Your task to perform on an android device: change notifications settings Image 0: 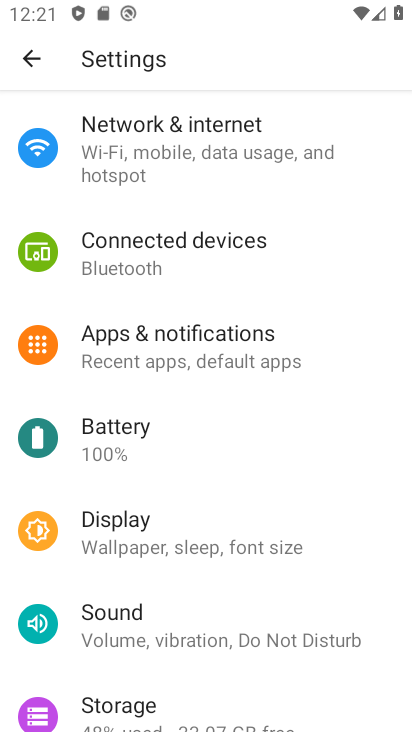
Step 0: click (139, 369)
Your task to perform on an android device: change notifications settings Image 1: 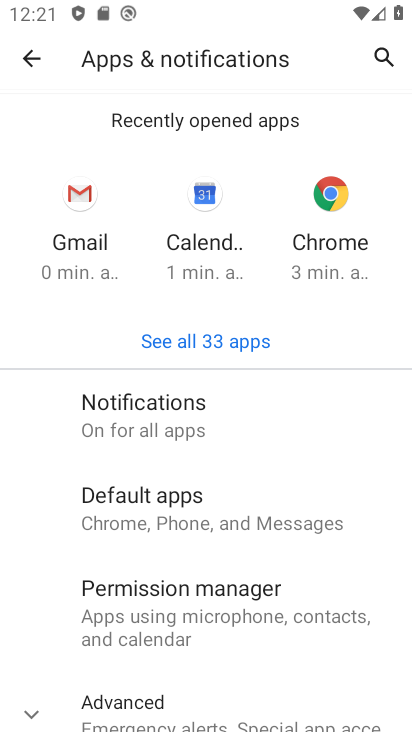
Step 1: click (153, 407)
Your task to perform on an android device: change notifications settings Image 2: 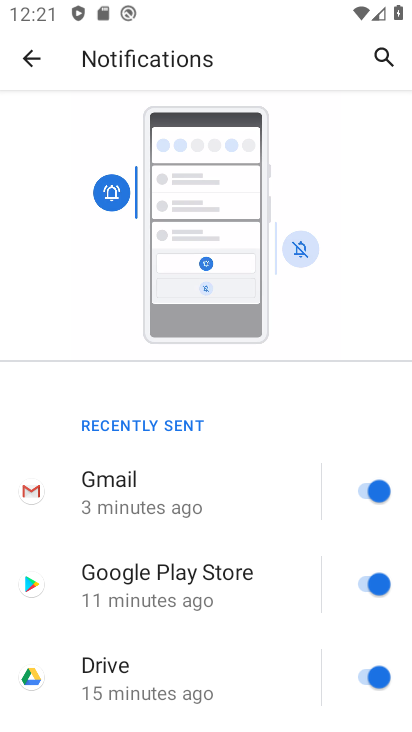
Step 2: drag from (218, 621) to (195, 324)
Your task to perform on an android device: change notifications settings Image 3: 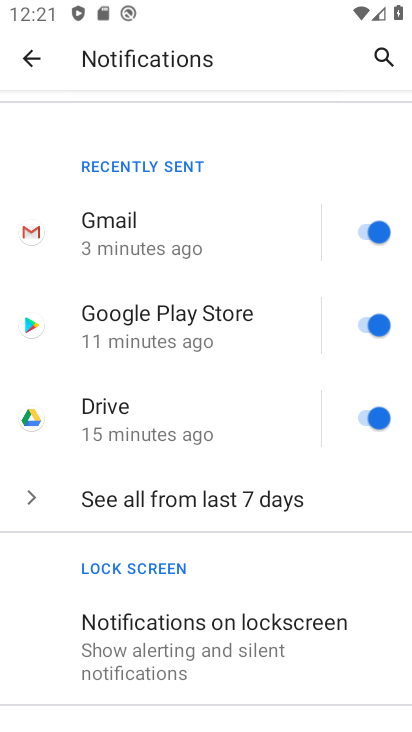
Step 3: drag from (236, 673) to (216, 449)
Your task to perform on an android device: change notifications settings Image 4: 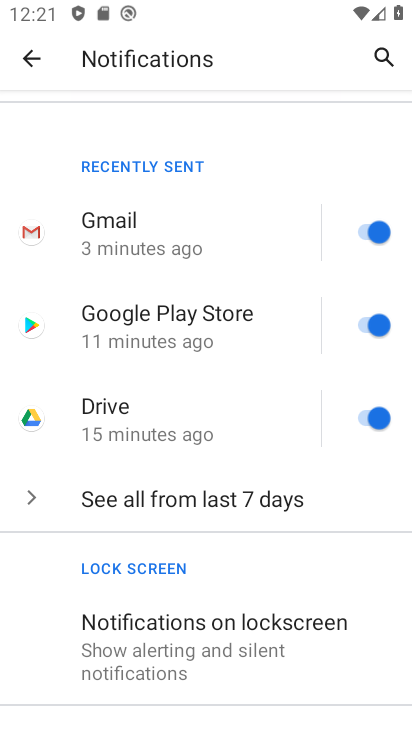
Step 4: drag from (192, 592) to (187, 233)
Your task to perform on an android device: change notifications settings Image 5: 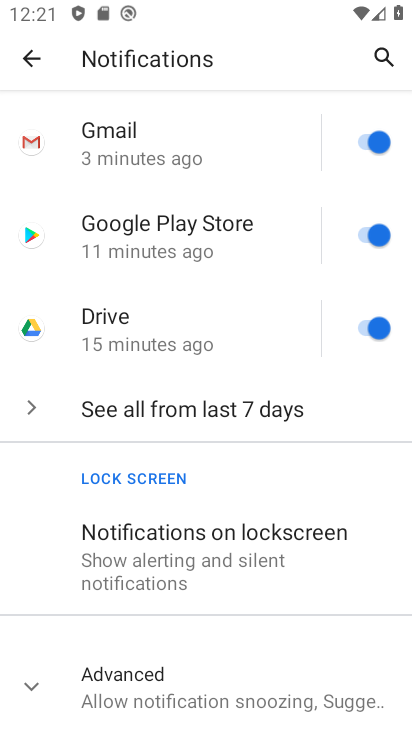
Step 5: click (126, 541)
Your task to perform on an android device: change notifications settings Image 6: 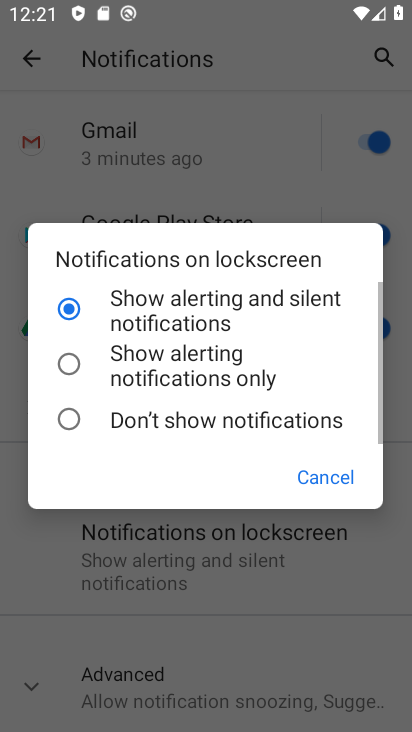
Step 6: click (147, 575)
Your task to perform on an android device: change notifications settings Image 7: 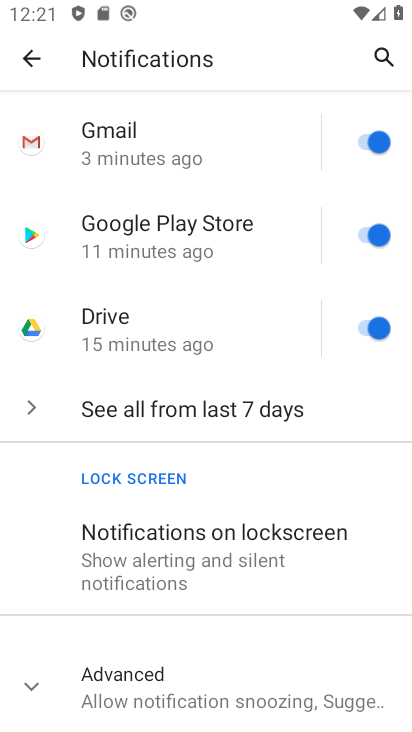
Step 7: click (161, 571)
Your task to perform on an android device: change notifications settings Image 8: 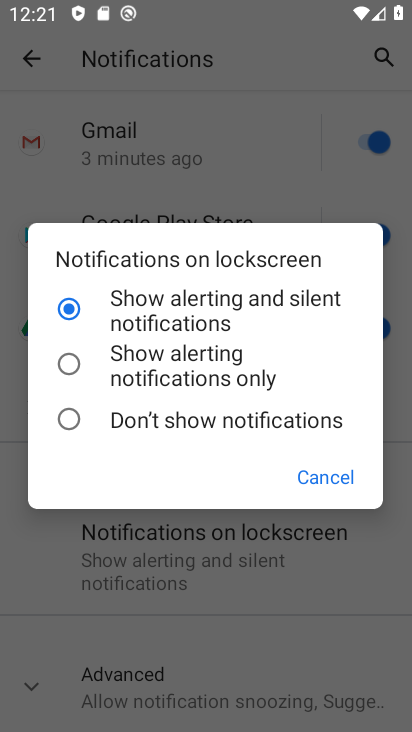
Step 8: click (71, 424)
Your task to perform on an android device: change notifications settings Image 9: 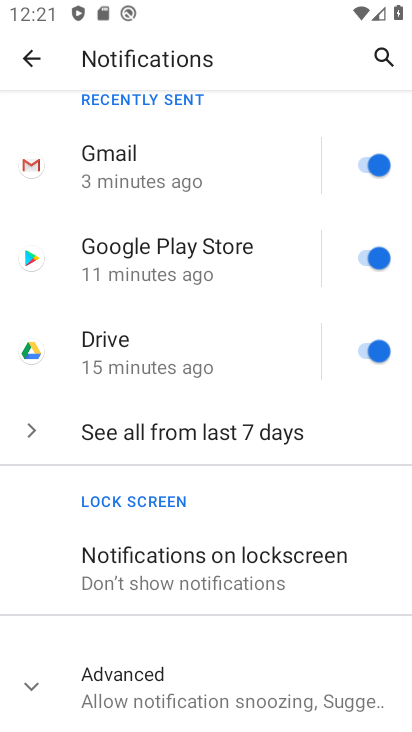
Step 9: task complete